Your task to perform on an android device: turn on wifi Image 0: 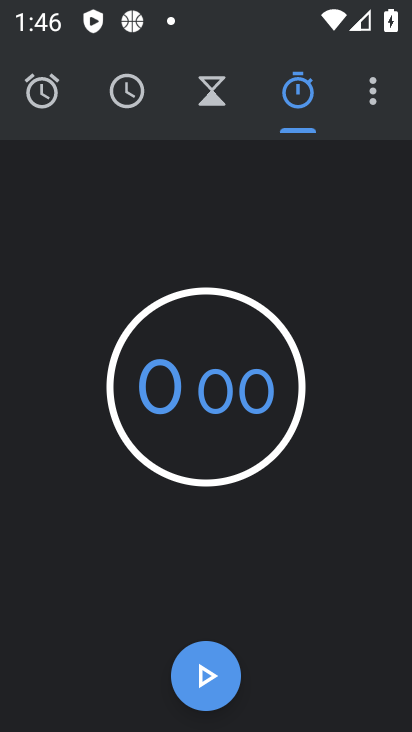
Step 0: press back button
Your task to perform on an android device: turn on wifi Image 1: 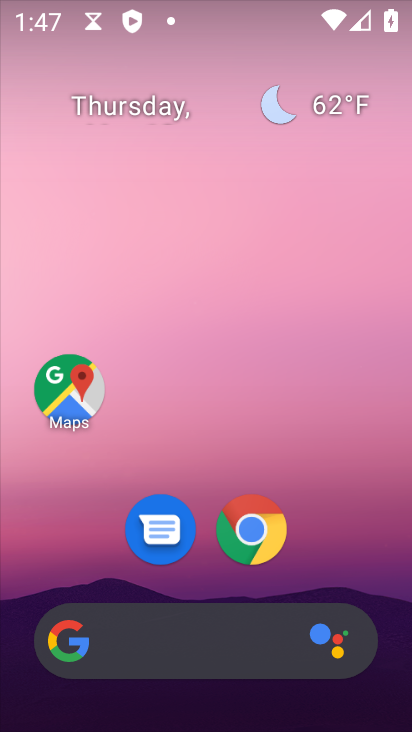
Step 1: drag from (329, 548) to (212, 6)
Your task to perform on an android device: turn on wifi Image 2: 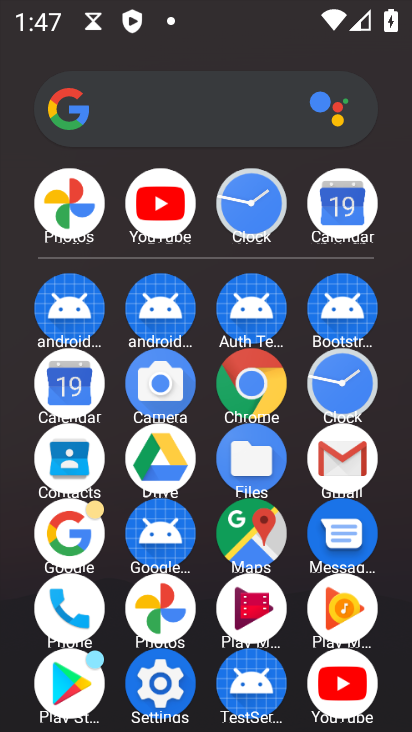
Step 2: click (161, 680)
Your task to perform on an android device: turn on wifi Image 3: 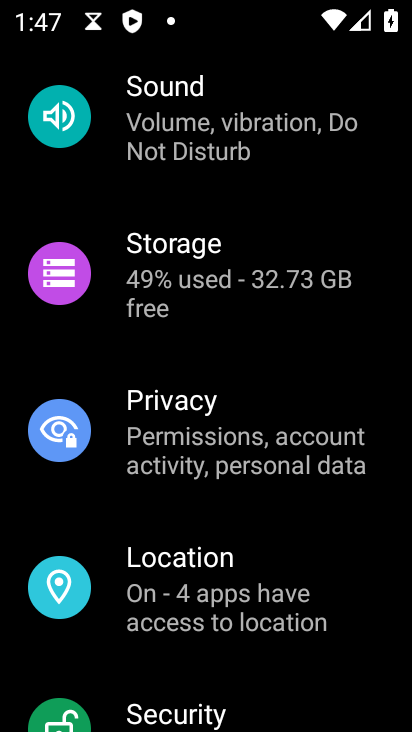
Step 3: drag from (227, 345) to (225, 460)
Your task to perform on an android device: turn on wifi Image 4: 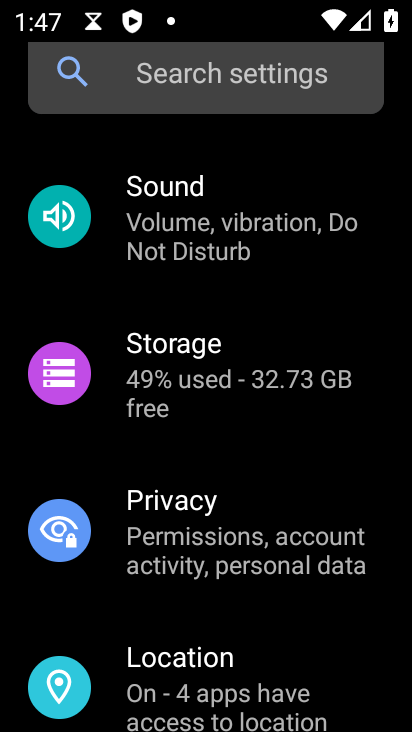
Step 4: drag from (199, 301) to (195, 506)
Your task to perform on an android device: turn on wifi Image 5: 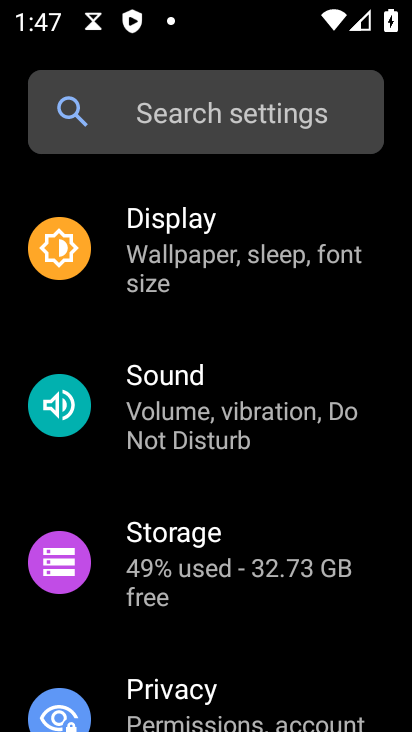
Step 5: drag from (198, 334) to (213, 481)
Your task to perform on an android device: turn on wifi Image 6: 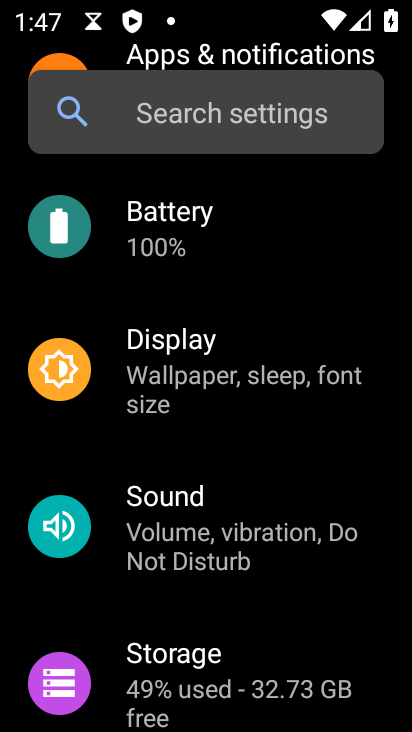
Step 6: drag from (219, 312) to (234, 435)
Your task to perform on an android device: turn on wifi Image 7: 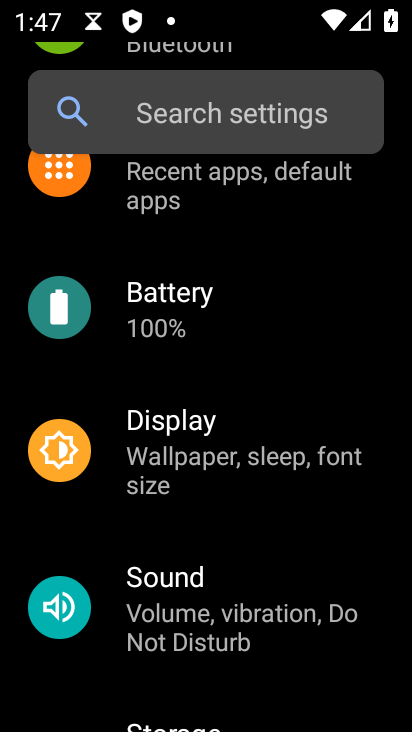
Step 7: drag from (238, 287) to (241, 439)
Your task to perform on an android device: turn on wifi Image 8: 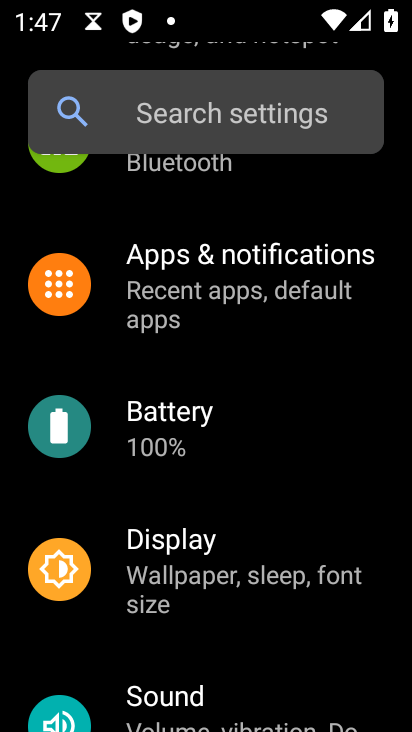
Step 8: drag from (211, 319) to (254, 454)
Your task to perform on an android device: turn on wifi Image 9: 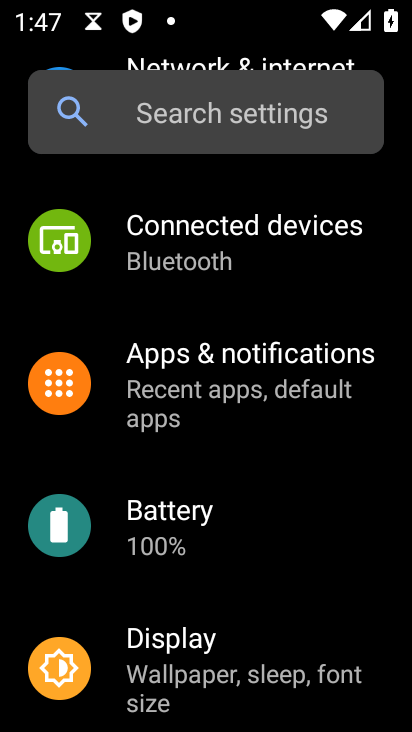
Step 9: drag from (240, 299) to (257, 414)
Your task to perform on an android device: turn on wifi Image 10: 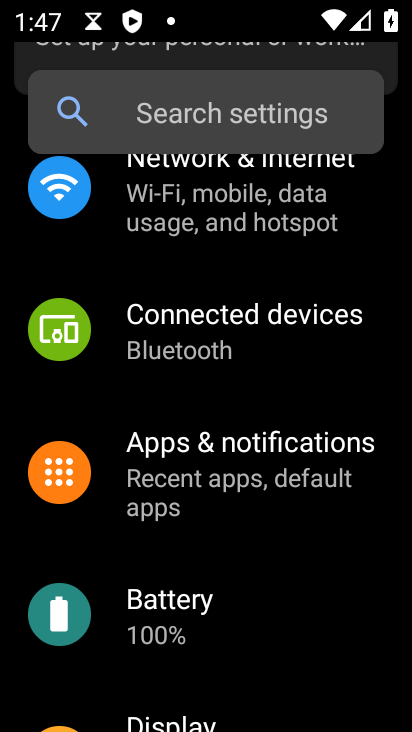
Step 10: drag from (235, 281) to (249, 415)
Your task to perform on an android device: turn on wifi Image 11: 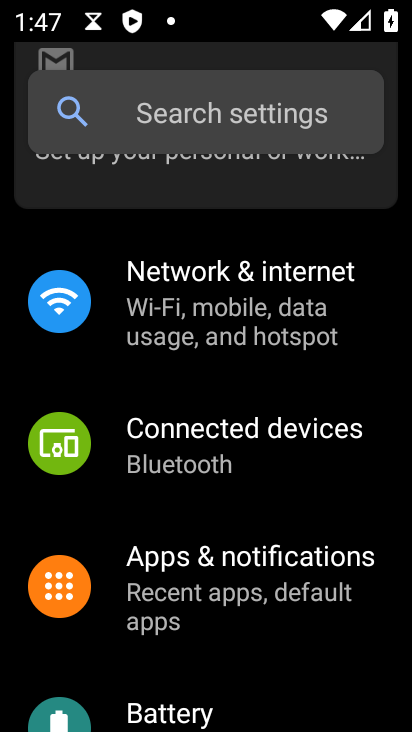
Step 11: click (212, 267)
Your task to perform on an android device: turn on wifi Image 12: 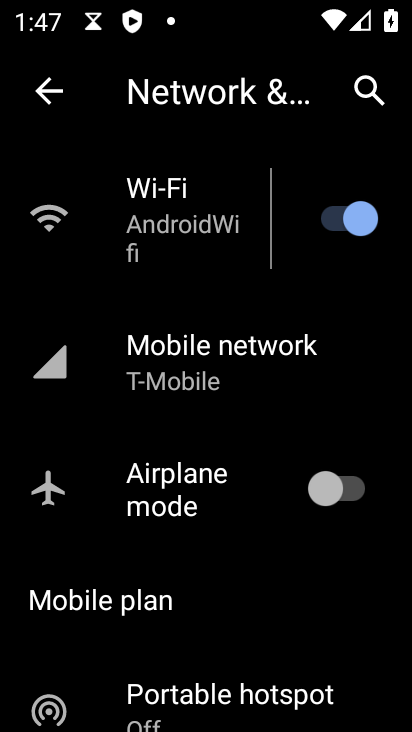
Step 12: task complete